Your task to perform on an android device: change notification settings in the gmail app Image 0: 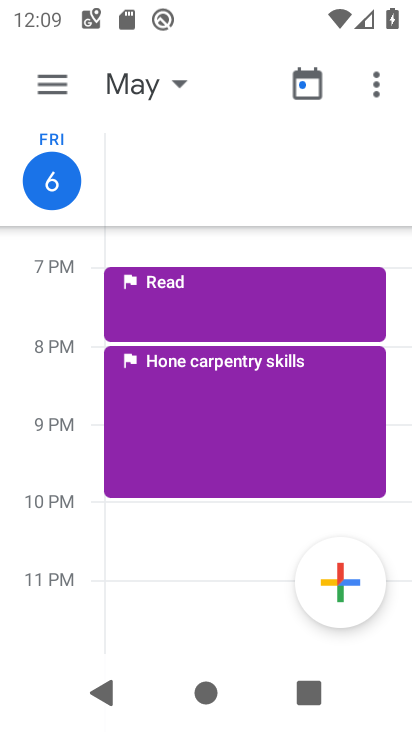
Step 0: press home button
Your task to perform on an android device: change notification settings in the gmail app Image 1: 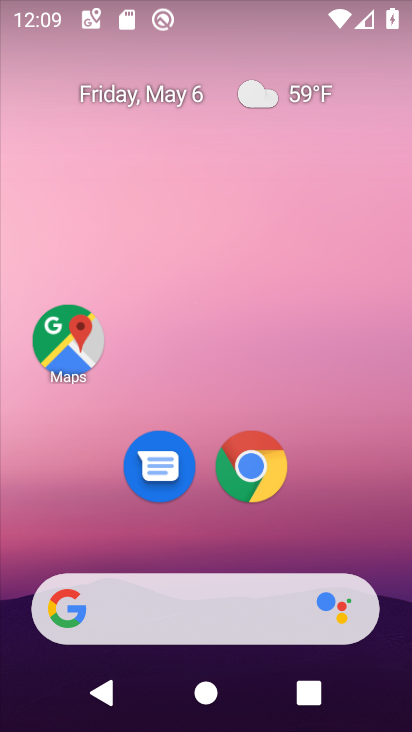
Step 1: drag from (388, 523) to (277, 91)
Your task to perform on an android device: change notification settings in the gmail app Image 2: 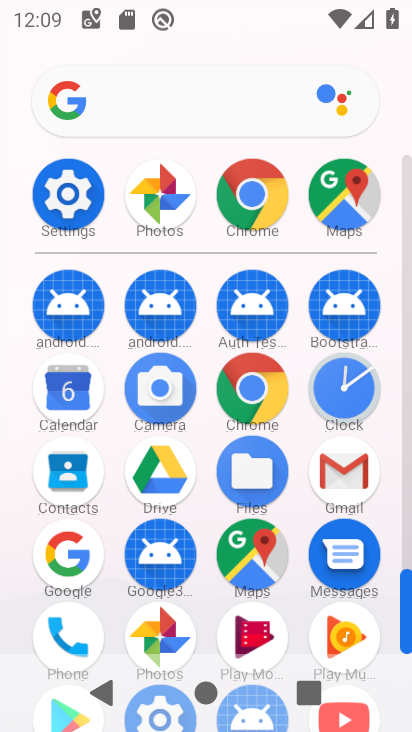
Step 2: click (334, 457)
Your task to perform on an android device: change notification settings in the gmail app Image 3: 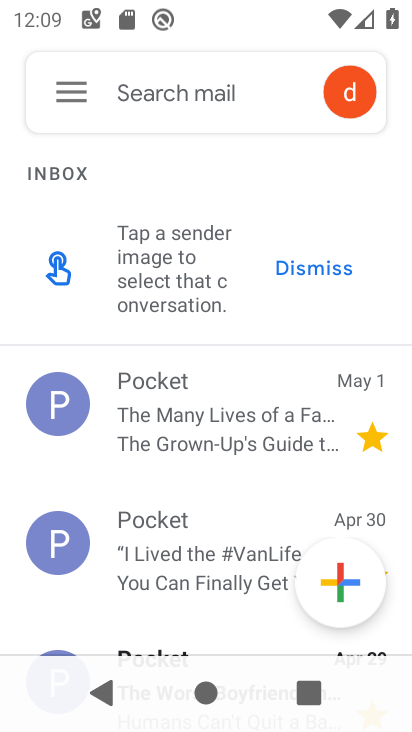
Step 3: click (73, 97)
Your task to perform on an android device: change notification settings in the gmail app Image 4: 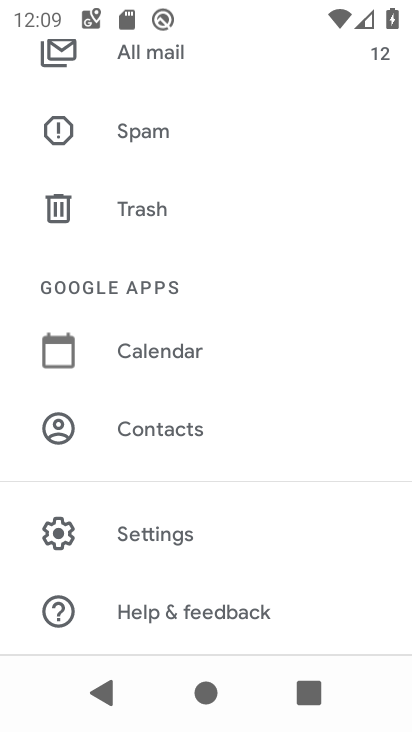
Step 4: click (191, 535)
Your task to perform on an android device: change notification settings in the gmail app Image 5: 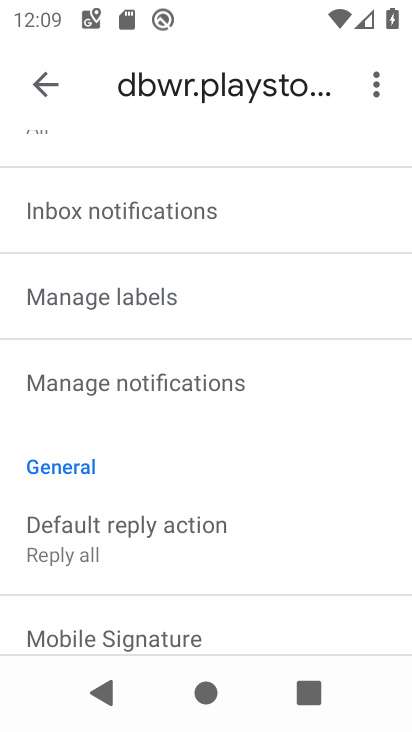
Step 5: click (243, 385)
Your task to perform on an android device: change notification settings in the gmail app Image 6: 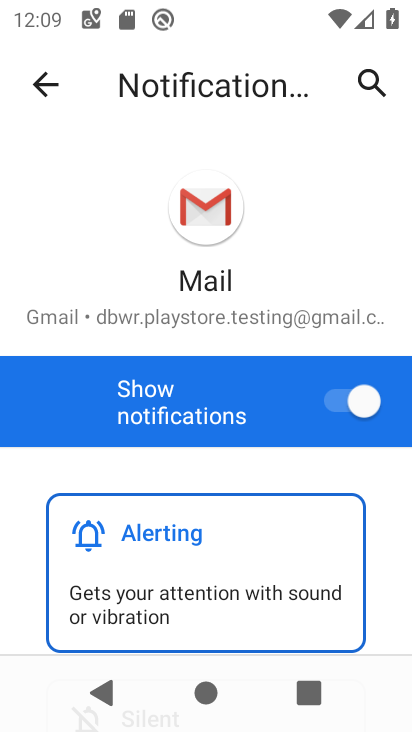
Step 6: drag from (402, 619) to (340, 220)
Your task to perform on an android device: change notification settings in the gmail app Image 7: 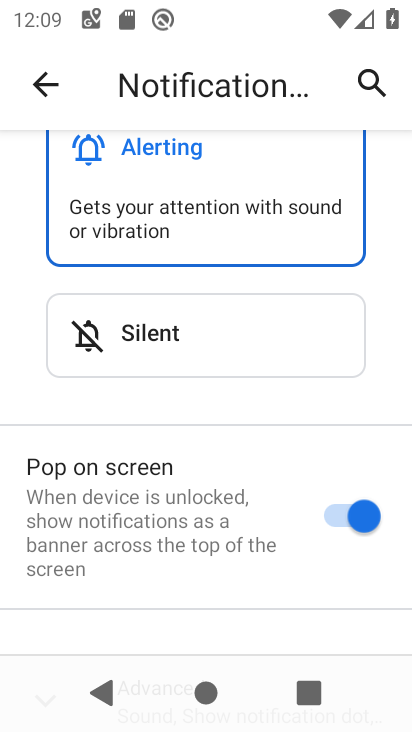
Step 7: click (327, 310)
Your task to perform on an android device: change notification settings in the gmail app Image 8: 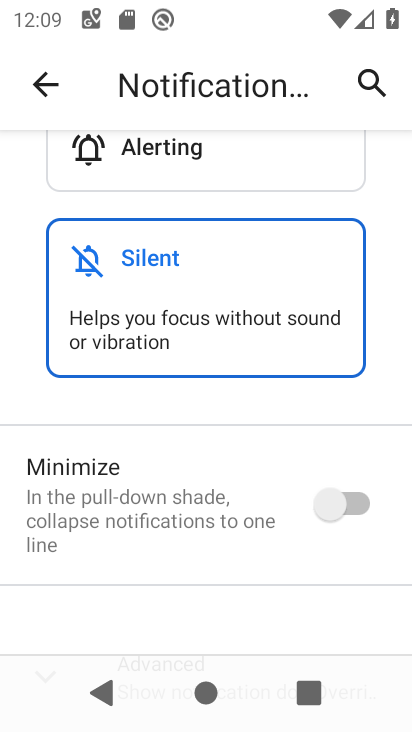
Step 8: task complete